Your task to perform on an android device: snooze an email in the gmail app Image 0: 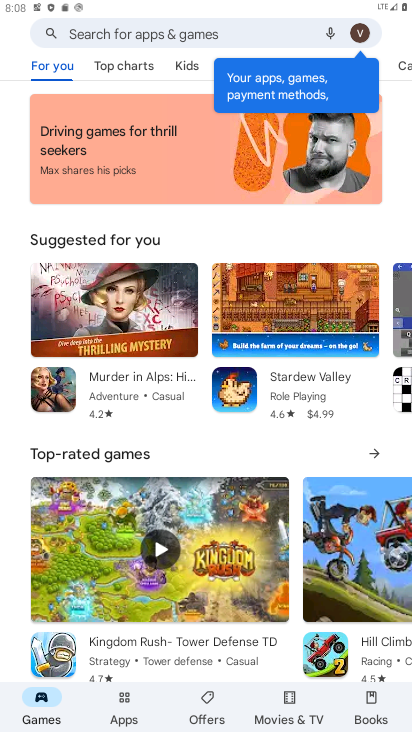
Step 0: press home button
Your task to perform on an android device: snooze an email in the gmail app Image 1: 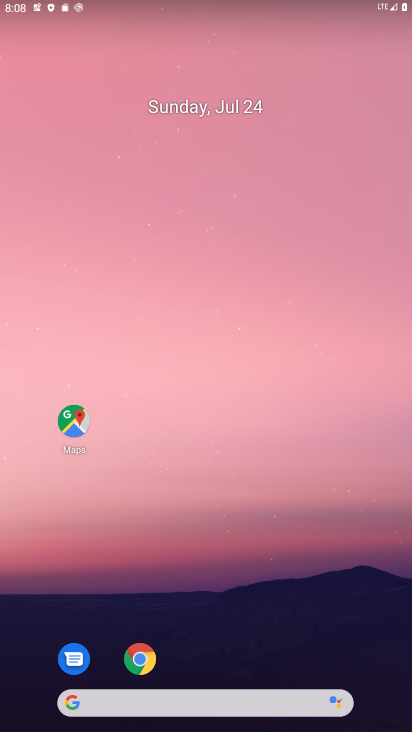
Step 1: drag from (226, 728) to (226, 208)
Your task to perform on an android device: snooze an email in the gmail app Image 2: 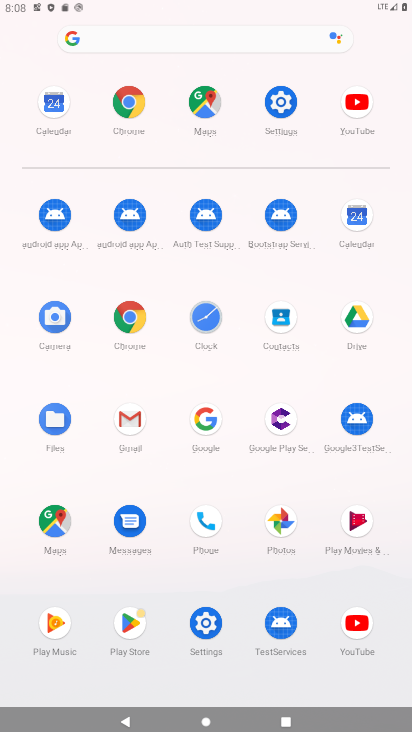
Step 2: click (131, 415)
Your task to perform on an android device: snooze an email in the gmail app Image 3: 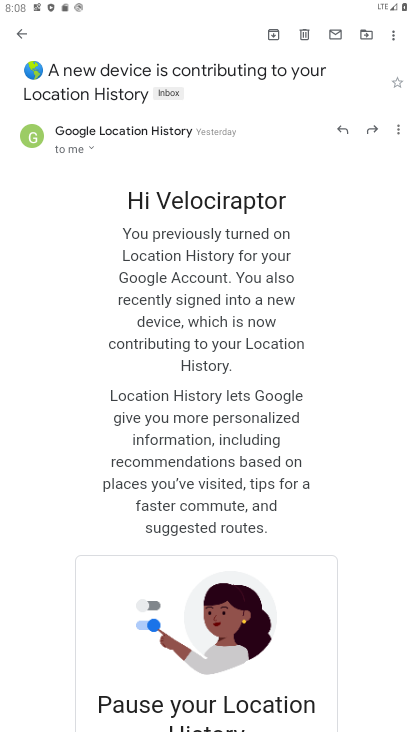
Step 3: click (22, 31)
Your task to perform on an android device: snooze an email in the gmail app Image 4: 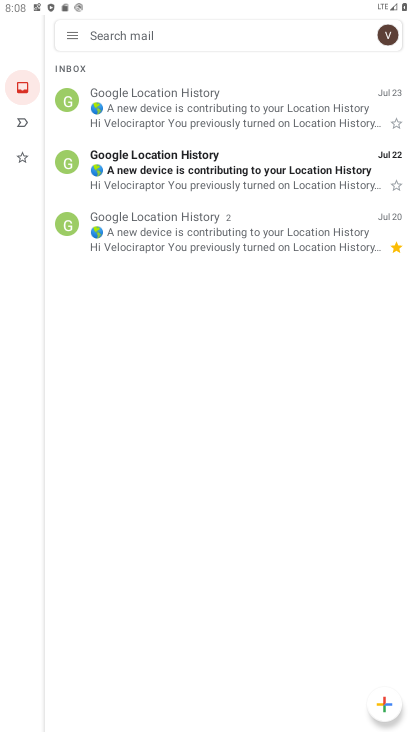
Step 4: click (394, 183)
Your task to perform on an android device: snooze an email in the gmail app Image 5: 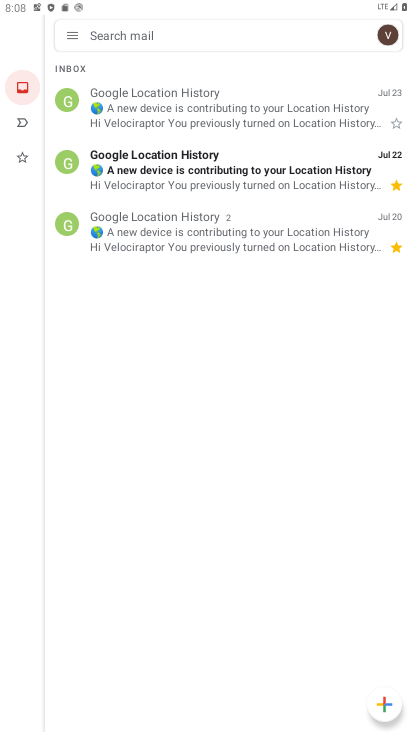
Step 5: task complete